Your task to perform on an android device: change alarm snooze length Image 0: 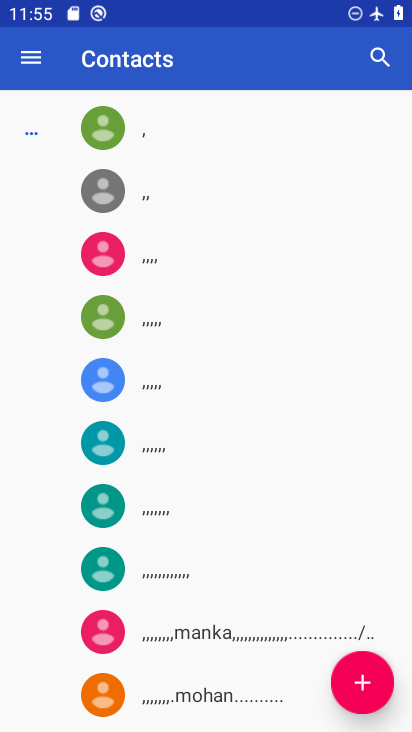
Step 0: press home button
Your task to perform on an android device: change alarm snooze length Image 1: 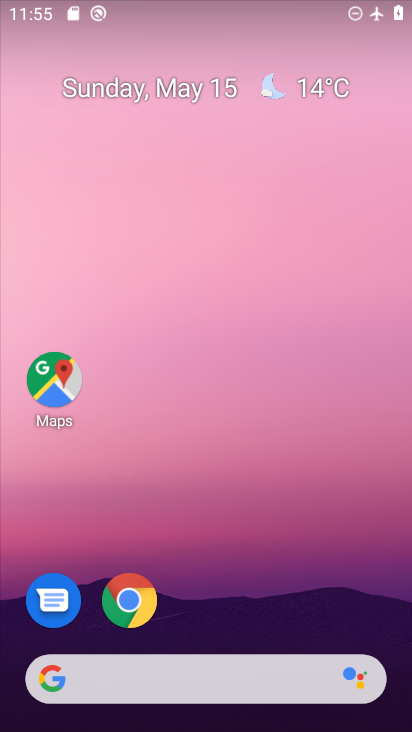
Step 1: drag from (345, 371) to (336, 104)
Your task to perform on an android device: change alarm snooze length Image 2: 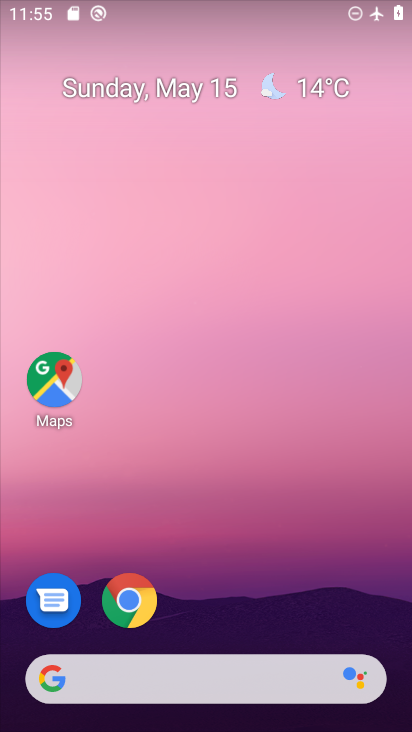
Step 2: drag from (387, 618) to (331, 59)
Your task to perform on an android device: change alarm snooze length Image 3: 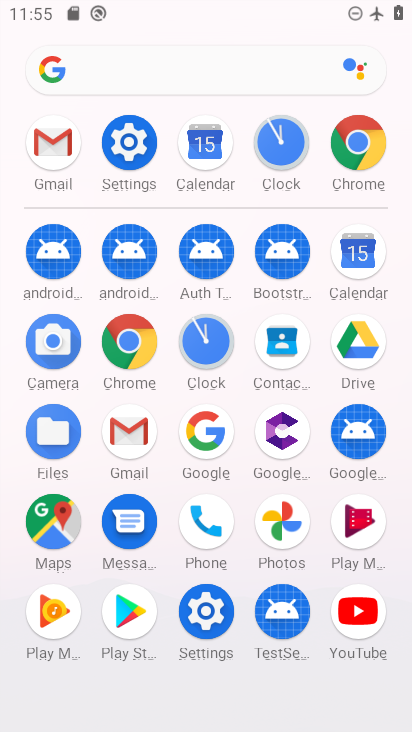
Step 3: click (210, 345)
Your task to perform on an android device: change alarm snooze length Image 4: 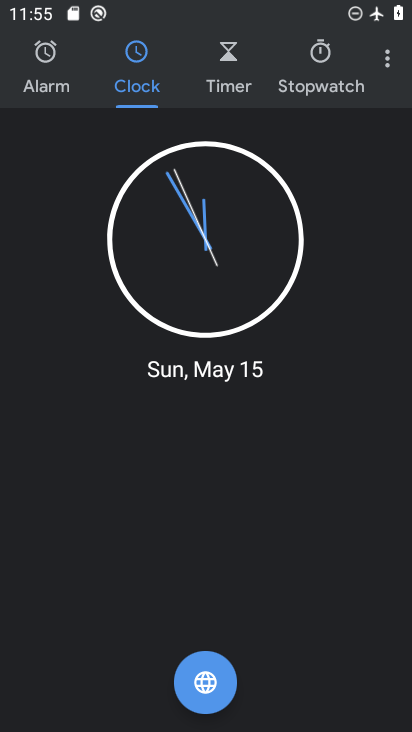
Step 4: click (382, 67)
Your task to perform on an android device: change alarm snooze length Image 5: 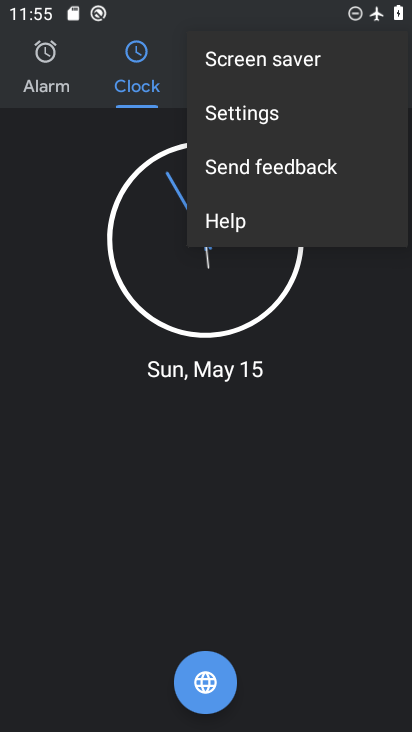
Step 5: click (233, 114)
Your task to perform on an android device: change alarm snooze length Image 6: 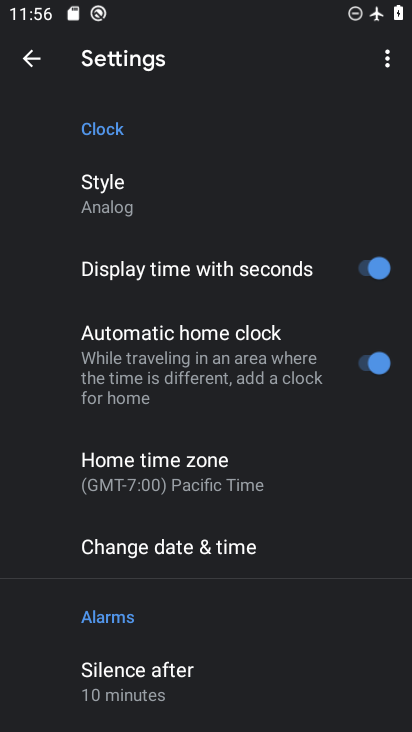
Step 6: drag from (322, 631) to (269, 110)
Your task to perform on an android device: change alarm snooze length Image 7: 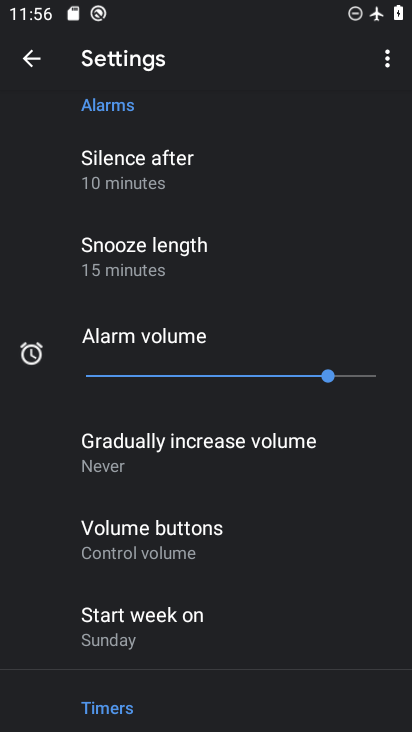
Step 7: drag from (237, 660) to (226, 578)
Your task to perform on an android device: change alarm snooze length Image 8: 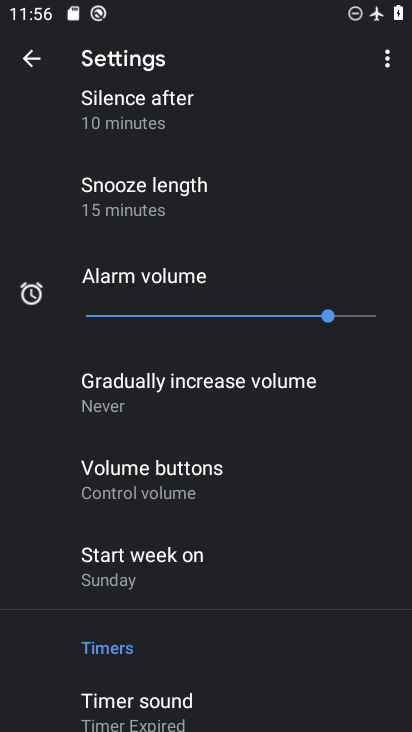
Step 8: click (119, 170)
Your task to perform on an android device: change alarm snooze length Image 9: 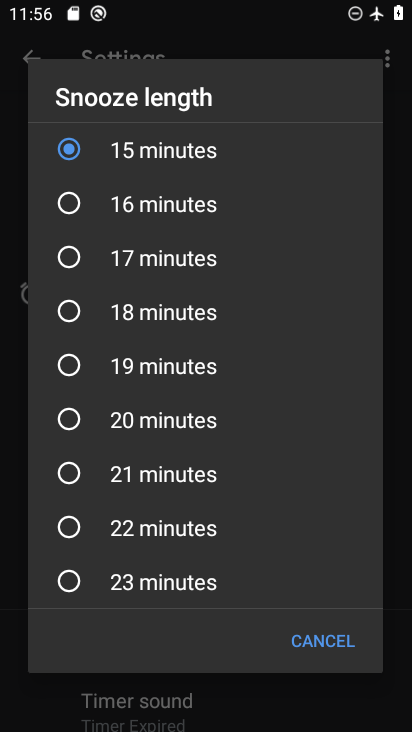
Step 9: drag from (147, 171) to (200, 524)
Your task to perform on an android device: change alarm snooze length Image 10: 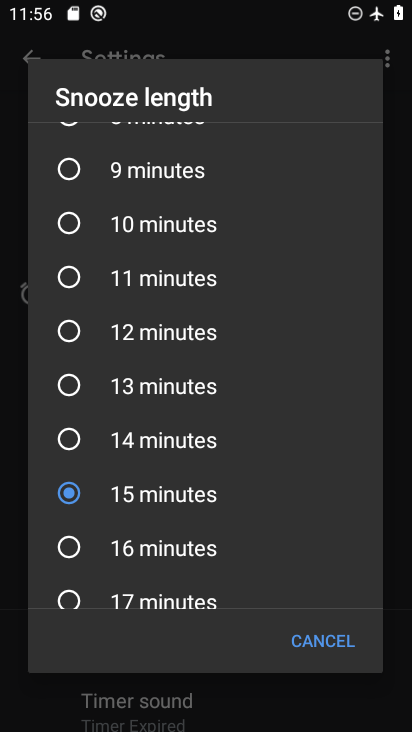
Step 10: click (67, 214)
Your task to perform on an android device: change alarm snooze length Image 11: 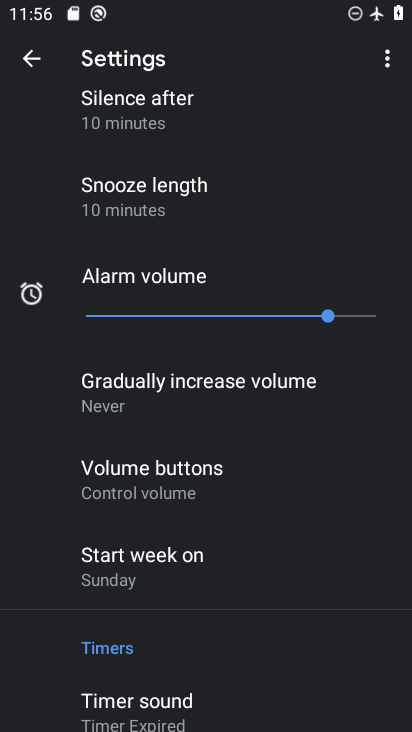
Step 11: task complete